Your task to perform on an android device: Open Chrome and go to settings Image 0: 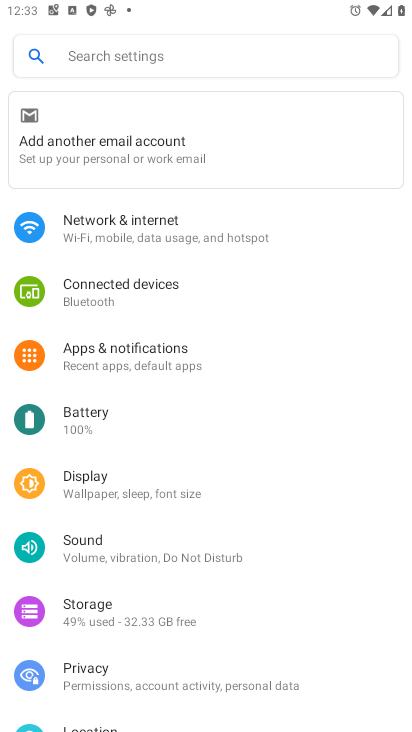
Step 0: press home button
Your task to perform on an android device: Open Chrome and go to settings Image 1: 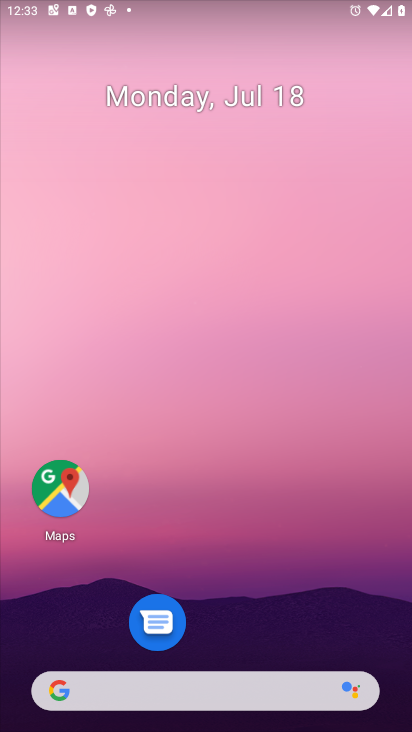
Step 1: drag from (184, 717) to (200, 78)
Your task to perform on an android device: Open Chrome and go to settings Image 2: 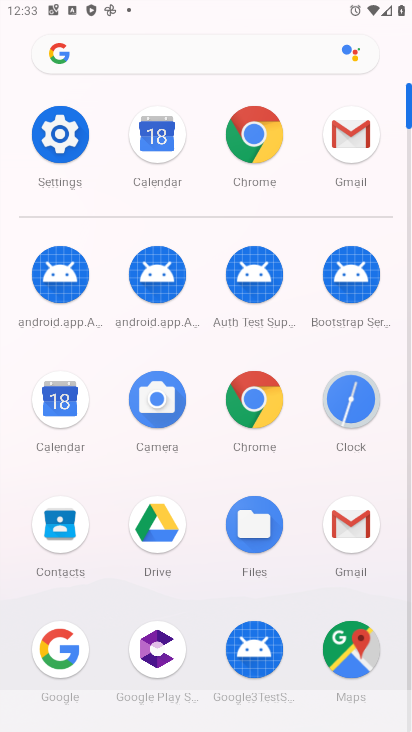
Step 2: click (237, 142)
Your task to perform on an android device: Open Chrome and go to settings Image 3: 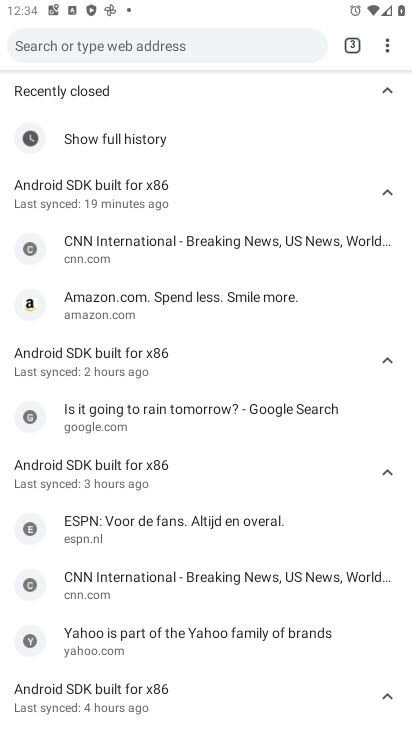
Step 3: click (385, 38)
Your task to perform on an android device: Open Chrome and go to settings Image 4: 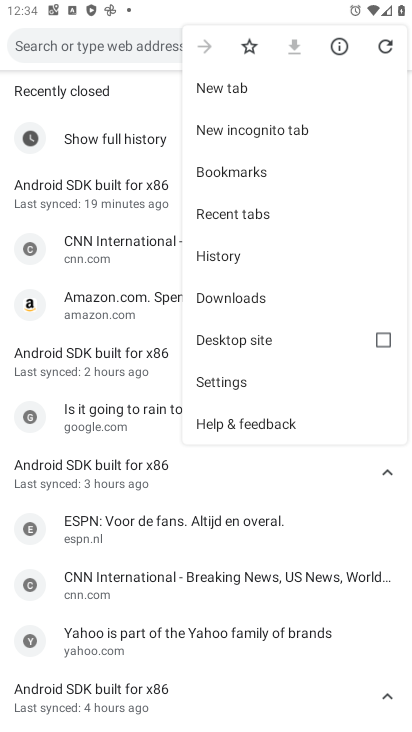
Step 4: click (240, 381)
Your task to perform on an android device: Open Chrome and go to settings Image 5: 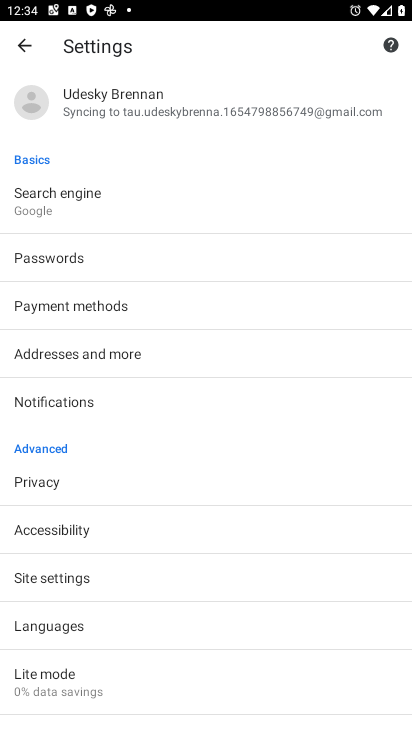
Step 5: task complete